Your task to perform on an android device: Open calendar and show me the second week of next month Image 0: 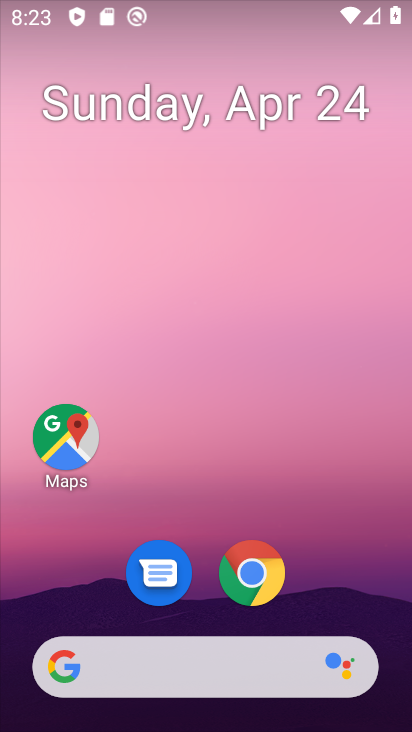
Step 0: drag from (317, 598) to (303, 136)
Your task to perform on an android device: Open calendar and show me the second week of next month Image 1: 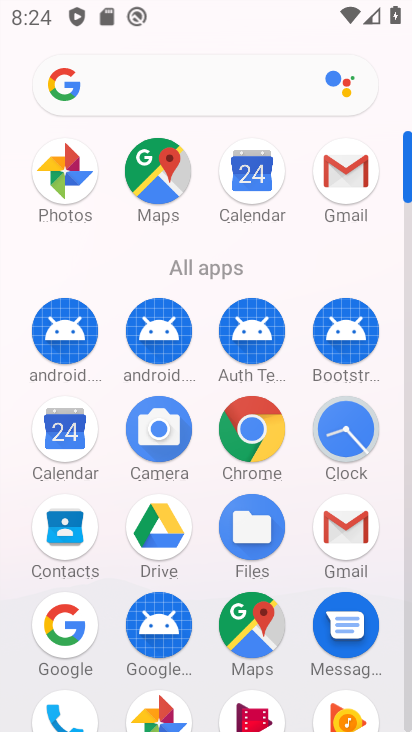
Step 1: click (58, 450)
Your task to perform on an android device: Open calendar and show me the second week of next month Image 2: 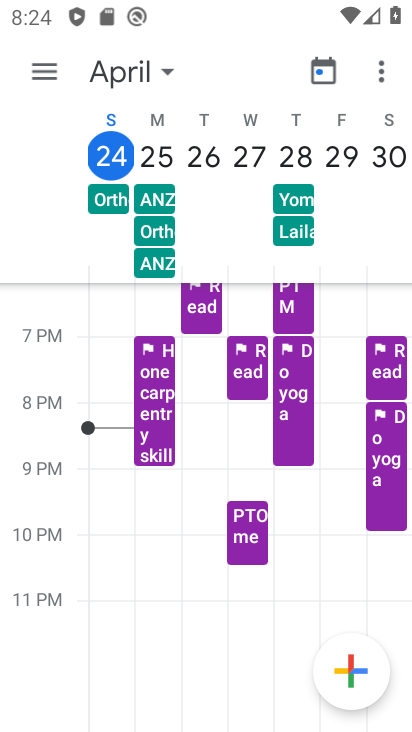
Step 2: click (162, 67)
Your task to perform on an android device: Open calendar and show me the second week of next month Image 3: 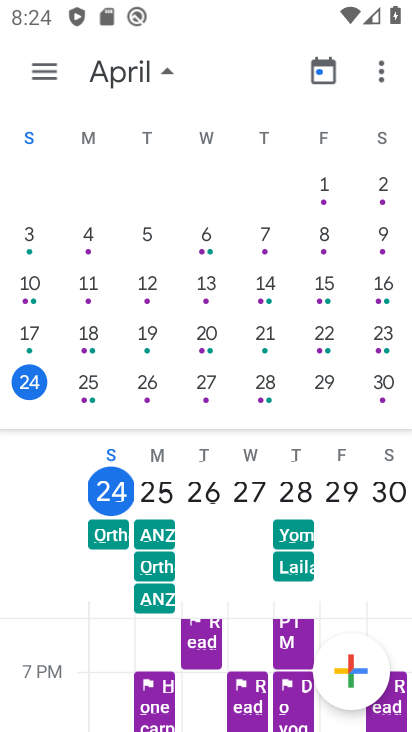
Step 3: drag from (379, 304) to (1, 294)
Your task to perform on an android device: Open calendar and show me the second week of next month Image 4: 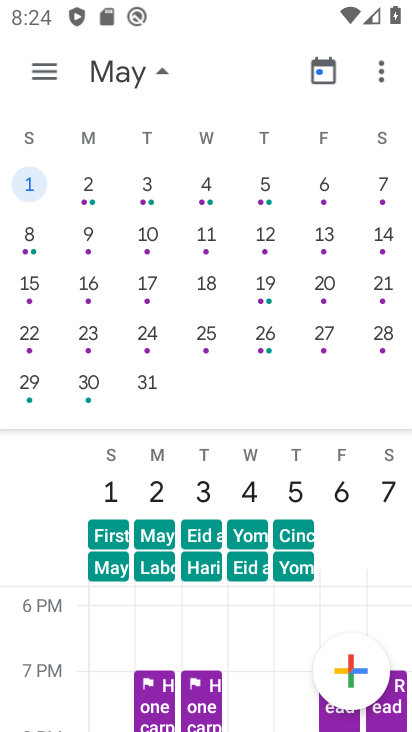
Step 4: click (87, 233)
Your task to perform on an android device: Open calendar and show me the second week of next month Image 5: 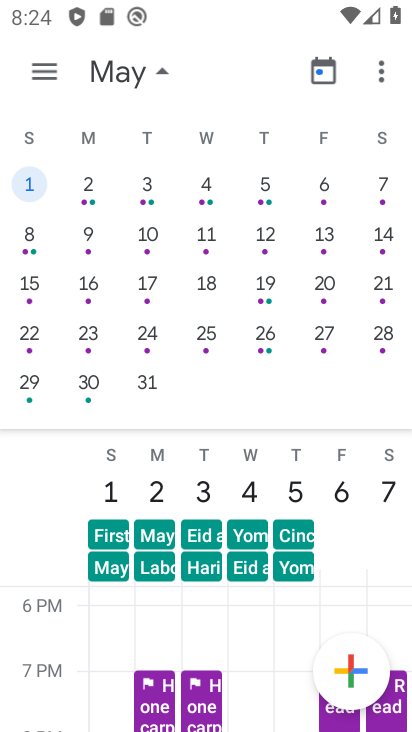
Step 5: click (29, 234)
Your task to perform on an android device: Open calendar and show me the second week of next month Image 6: 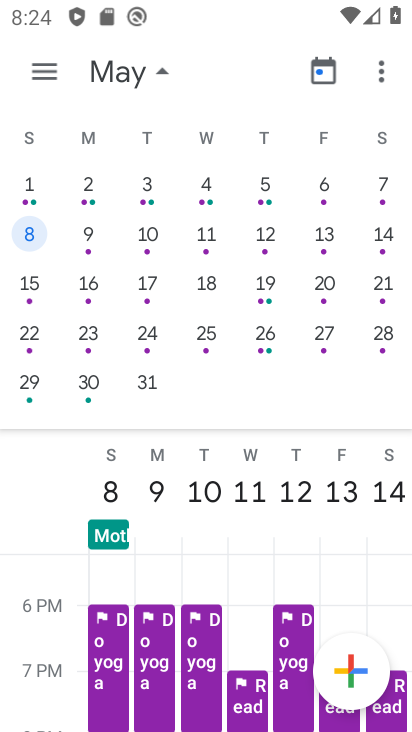
Step 6: task complete